Your task to perform on an android device: Is it going to rain today? Image 0: 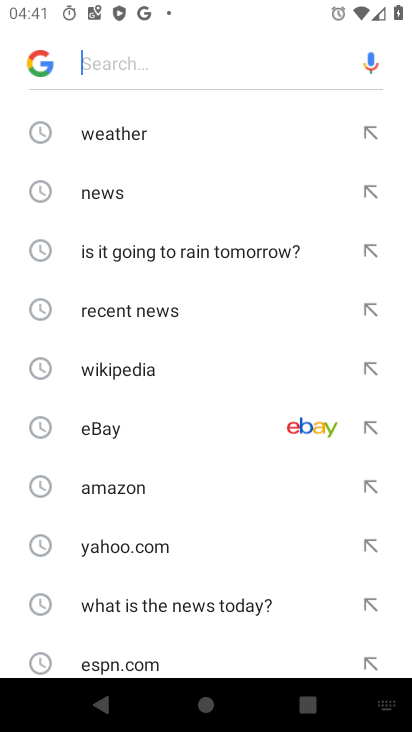
Step 0: press back button
Your task to perform on an android device: Is it going to rain today? Image 1: 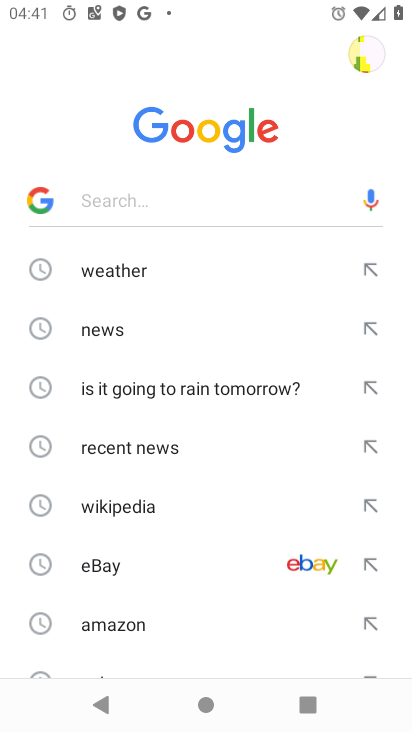
Step 1: press back button
Your task to perform on an android device: Is it going to rain today? Image 2: 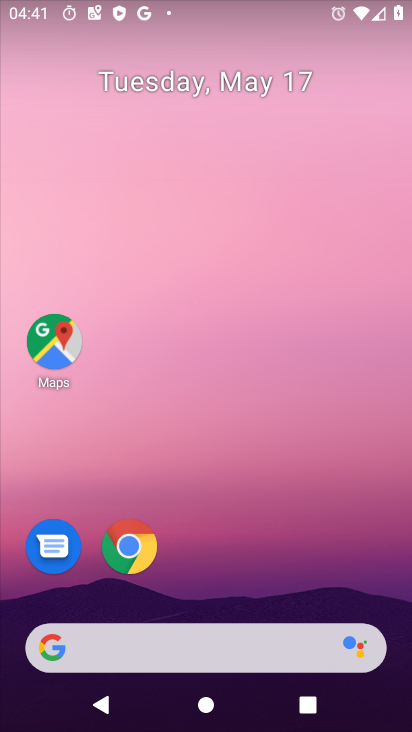
Step 2: click (275, 82)
Your task to perform on an android device: Is it going to rain today? Image 3: 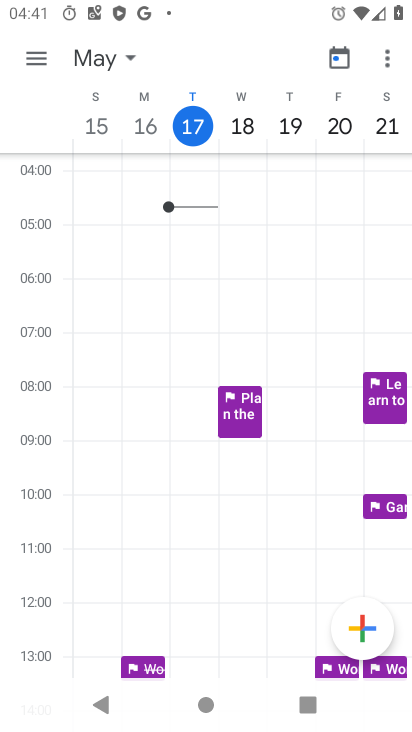
Step 3: press home button
Your task to perform on an android device: Is it going to rain today? Image 4: 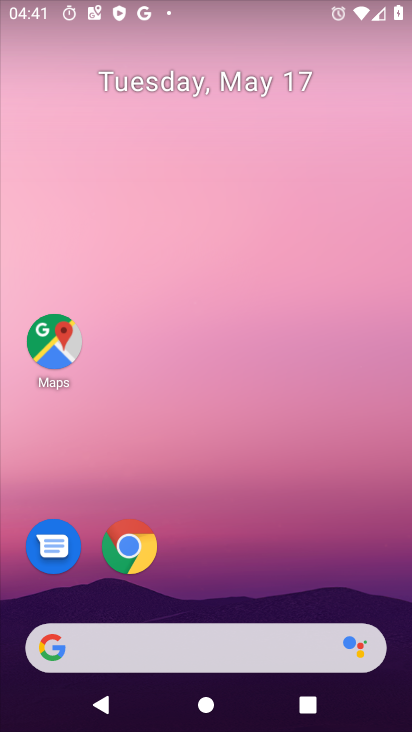
Step 4: drag from (1, 232) to (252, 353)
Your task to perform on an android device: Is it going to rain today? Image 5: 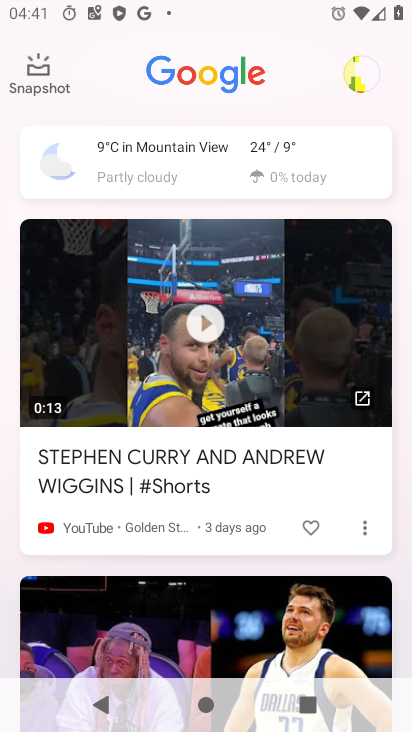
Step 5: click (222, 148)
Your task to perform on an android device: Is it going to rain today? Image 6: 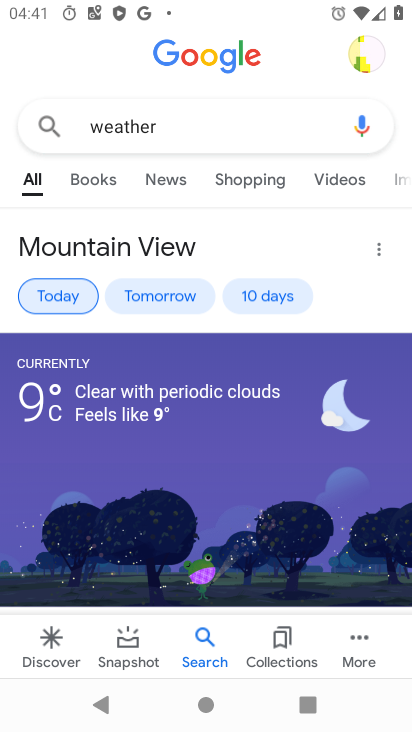
Step 6: task complete